Your task to perform on an android device: Clear the cart on bestbuy. Search for "razer blade" on bestbuy, select the first entry, add it to the cart, then select checkout. Image 0: 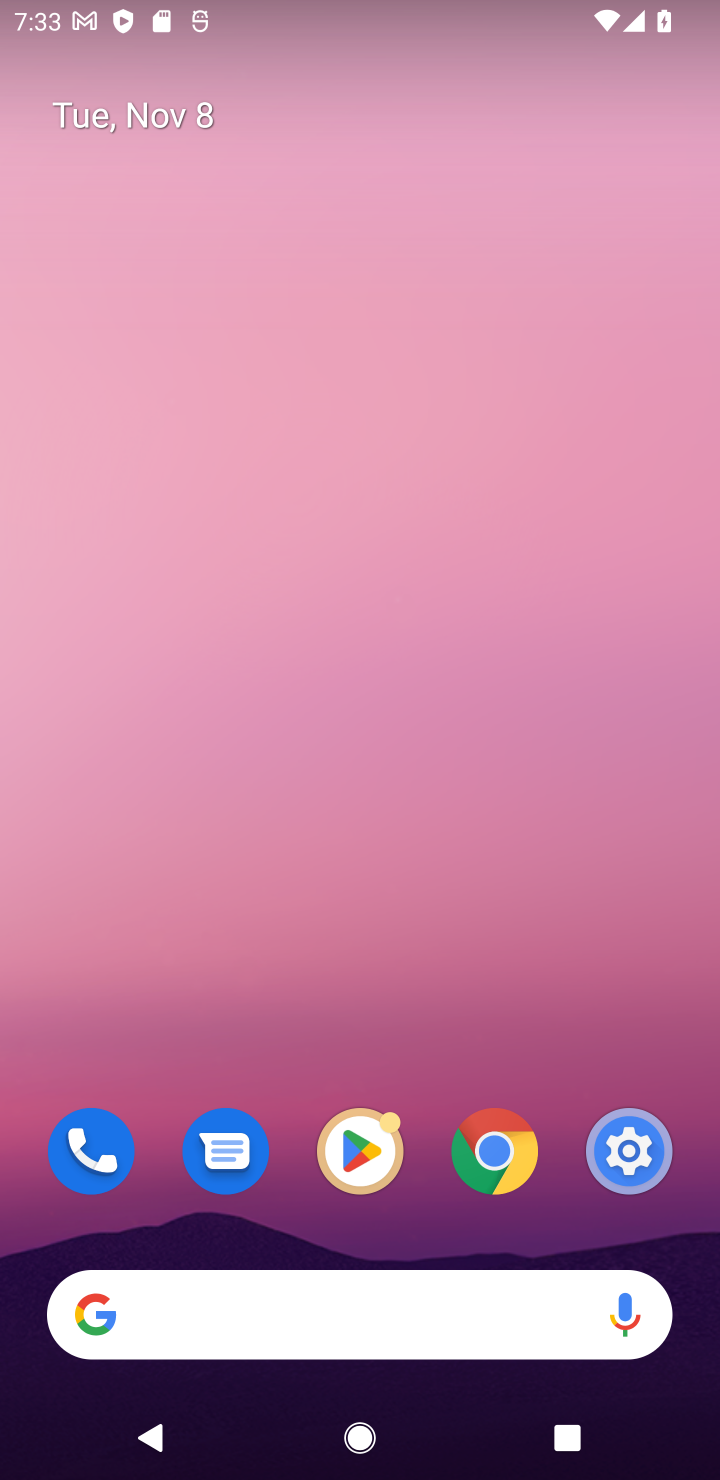
Step 0: click (278, 1327)
Your task to perform on an android device: Clear the cart on bestbuy. Search for "razer blade" on bestbuy, select the first entry, add it to the cart, then select checkout. Image 1: 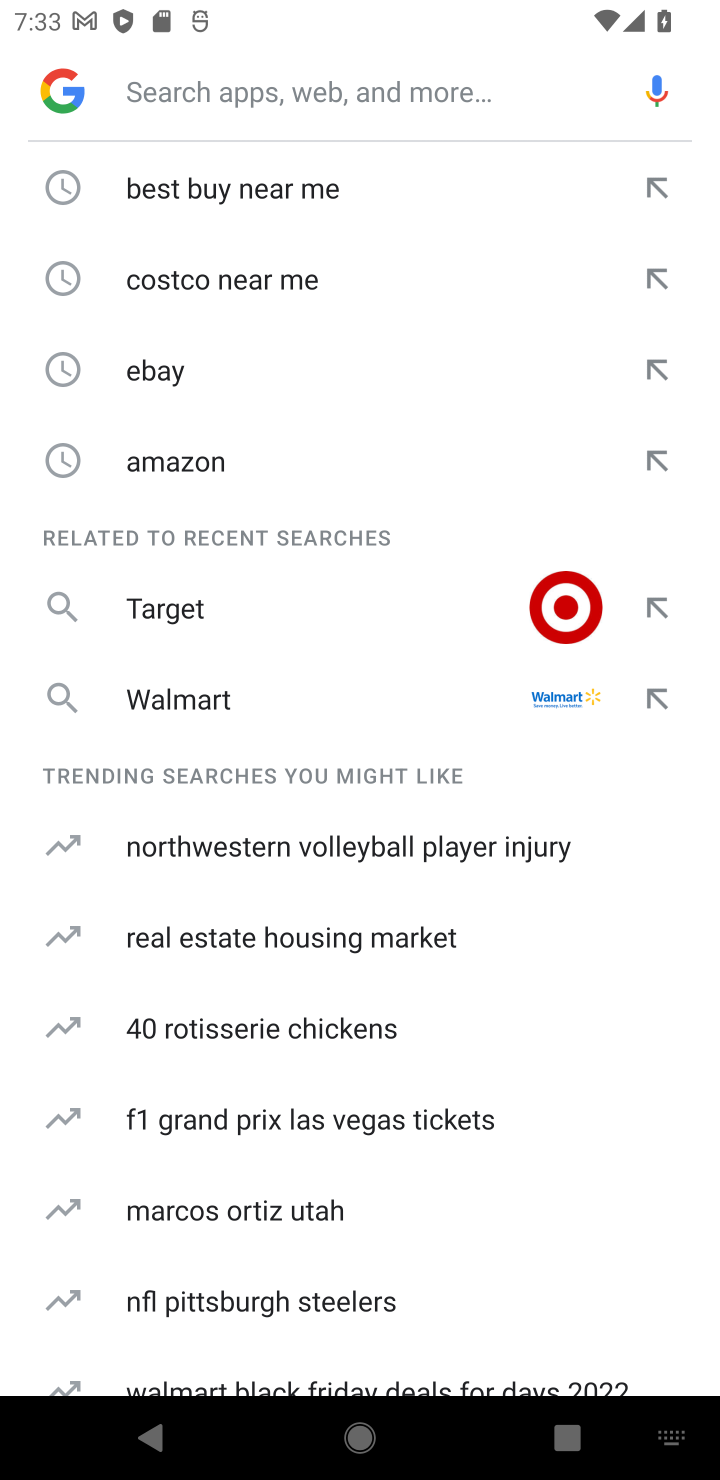
Step 1: type "bestbuy"
Your task to perform on an android device: Clear the cart on bestbuy. Search for "razer blade" on bestbuy, select the first entry, add it to the cart, then select checkout. Image 2: 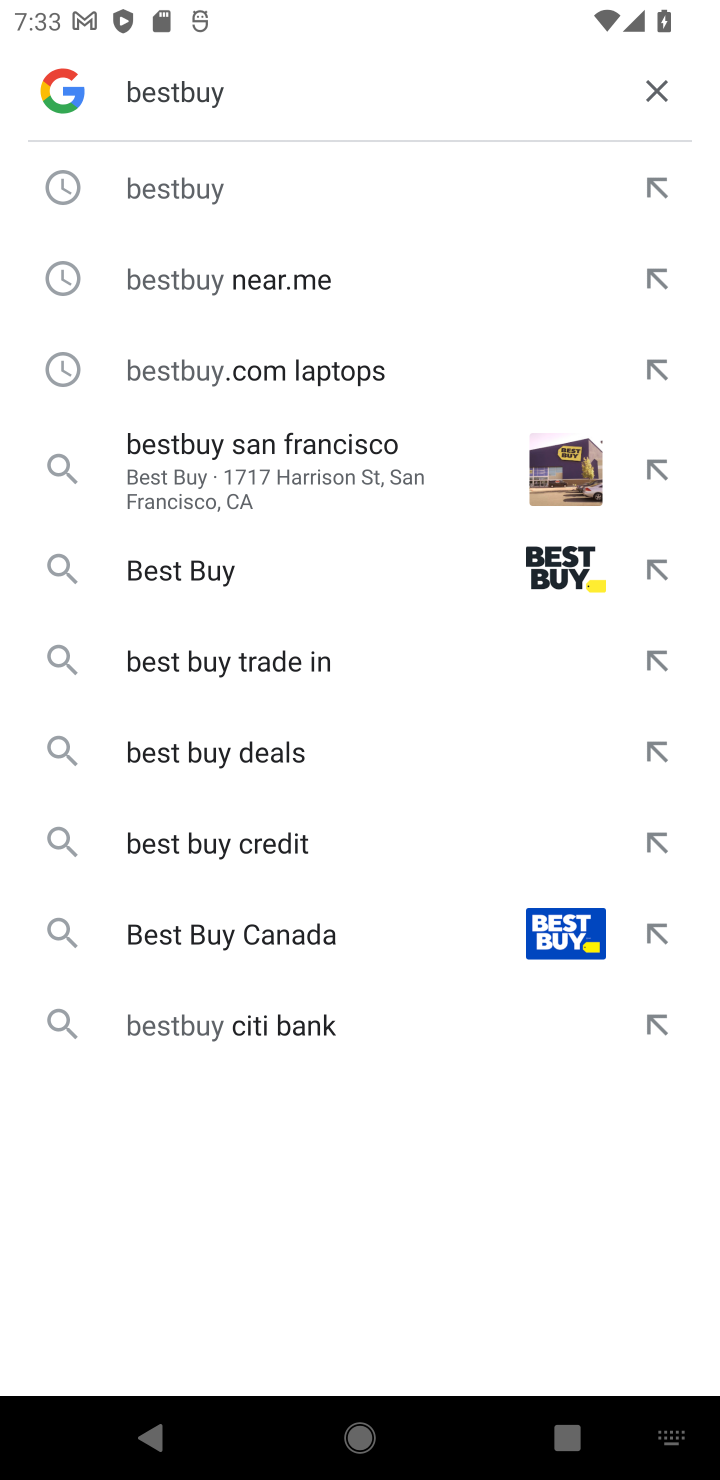
Step 2: click (295, 167)
Your task to perform on an android device: Clear the cart on bestbuy. Search for "razer blade" on bestbuy, select the first entry, add it to the cart, then select checkout. Image 3: 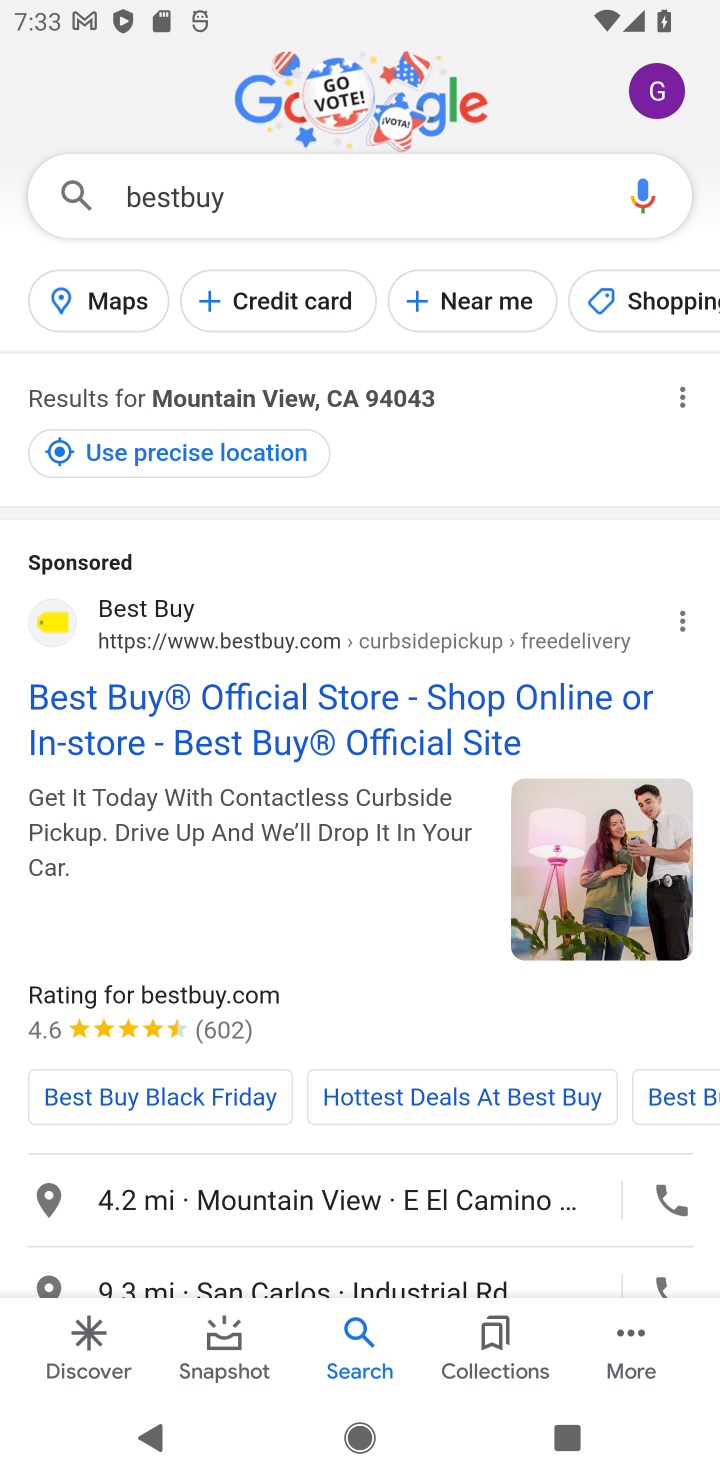
Step 3: click (353, 691)
Your task to perform on an android device: Clear the cart on bestbuy. Search for "razer blade" on bestbuy, select the first entry, add it to the cart, then select checkout. Image 4: 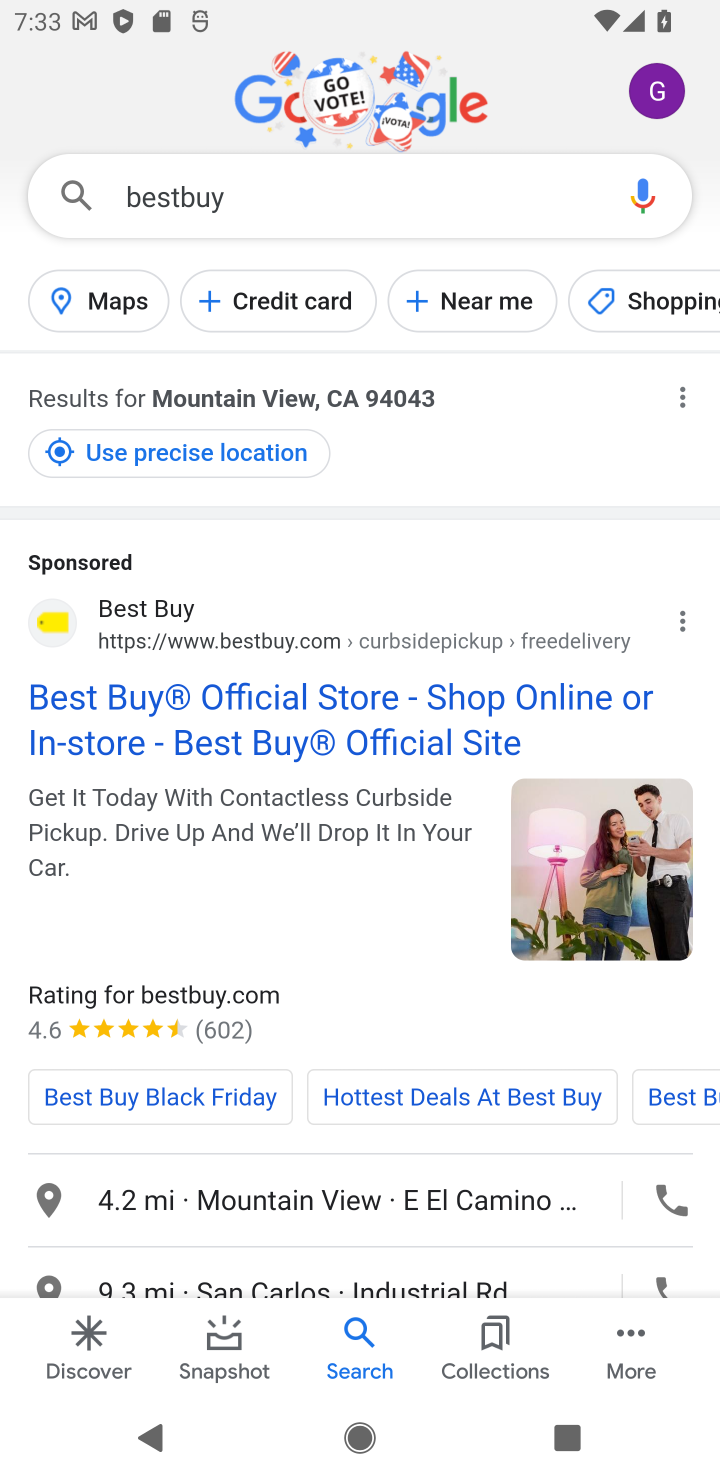
Step 4: task complete